Your task to perform on an android device: create a new album in the google photos Image 0: 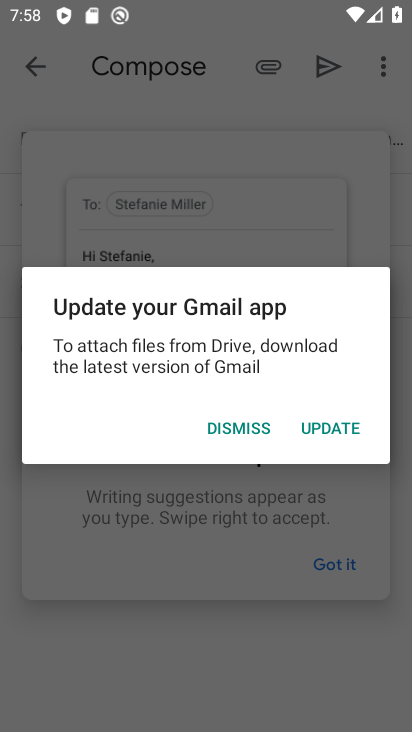
Step 0: press home button
Your task to perform on an android device: create a new album in the google photos Image 1: 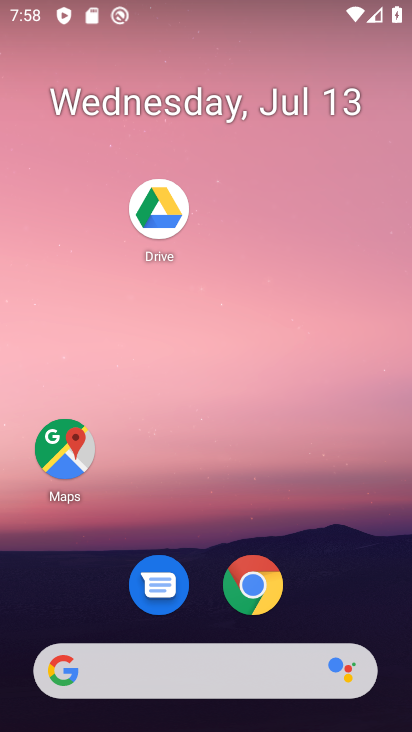
Step 1: drag from (182, 644) to (335, 31)
Your task to perform on an android device: create a new album in the google photos Image 2: 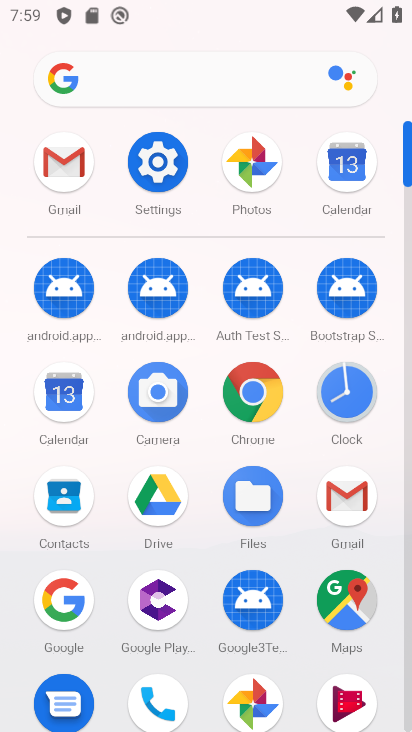
Step 2: click (257, 686)
Your task to perform on an android device: create a new album in the google photos Image 3: 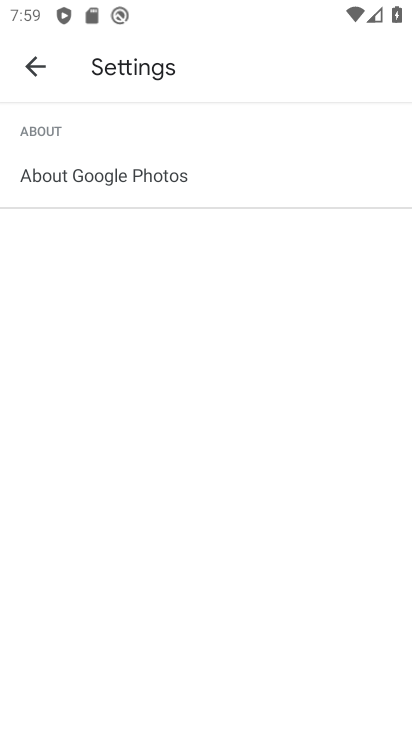
Step 3: click (35, 68)
Your task to perform on an android device: create a new album in the google photos Image 4: 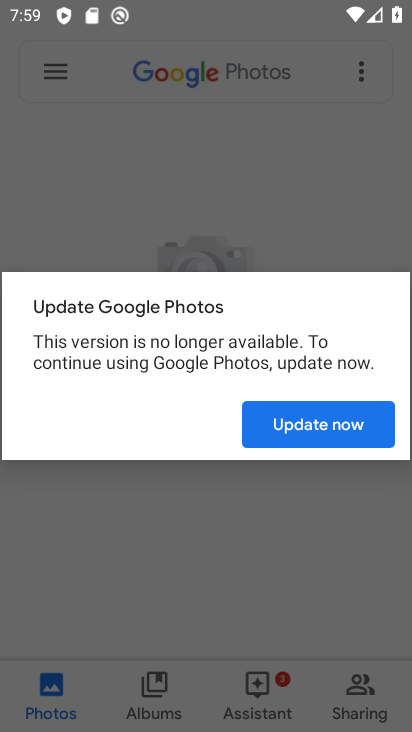
Step 4: click (331, 412)
Your task to perform on an android device: create a new album in the google photos Image 5: 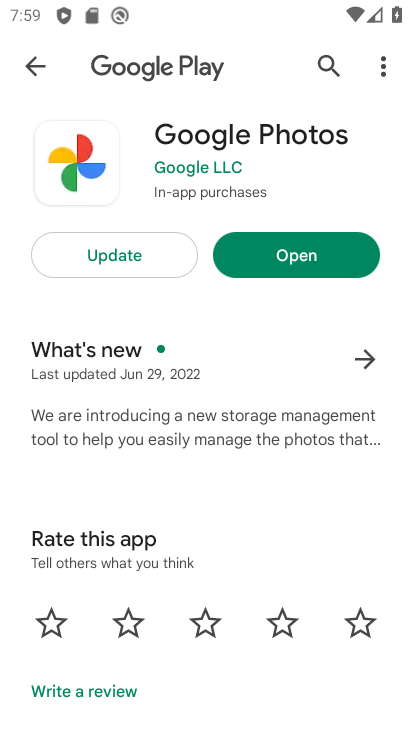
Step 5: click (305, 246)
Your task to perform on an android device: create a new album in the google photos Image 6: 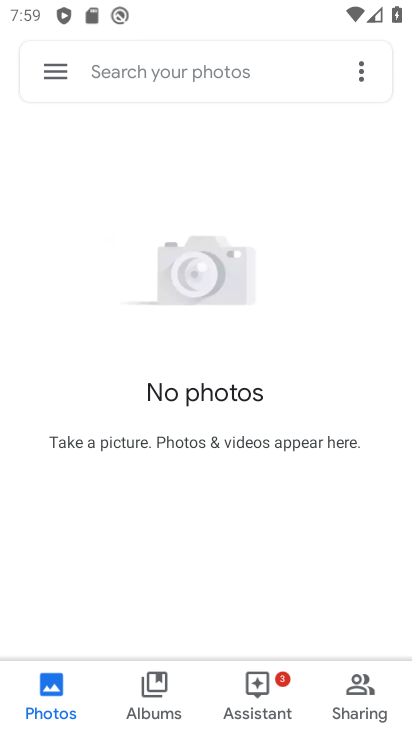
Step 6: click (176, 677)
Your task to perform on an android device: create a new album in the google photos Image 7: 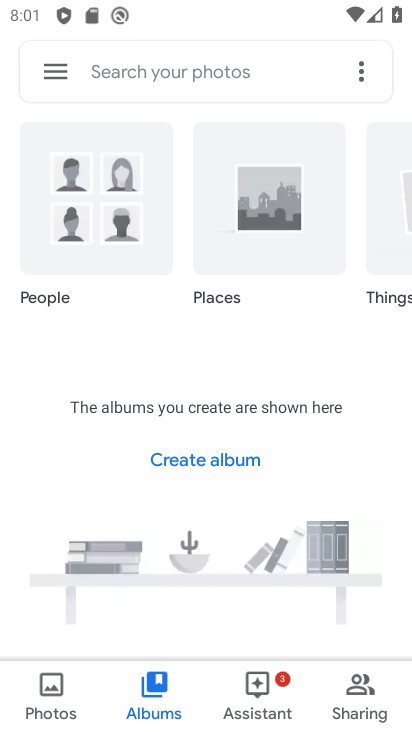
Step 7: task complete